Your task to perform on an android device: View the shopping cart on bestbuy. Add energizer triple a to the cart on bestbuy Image 0: 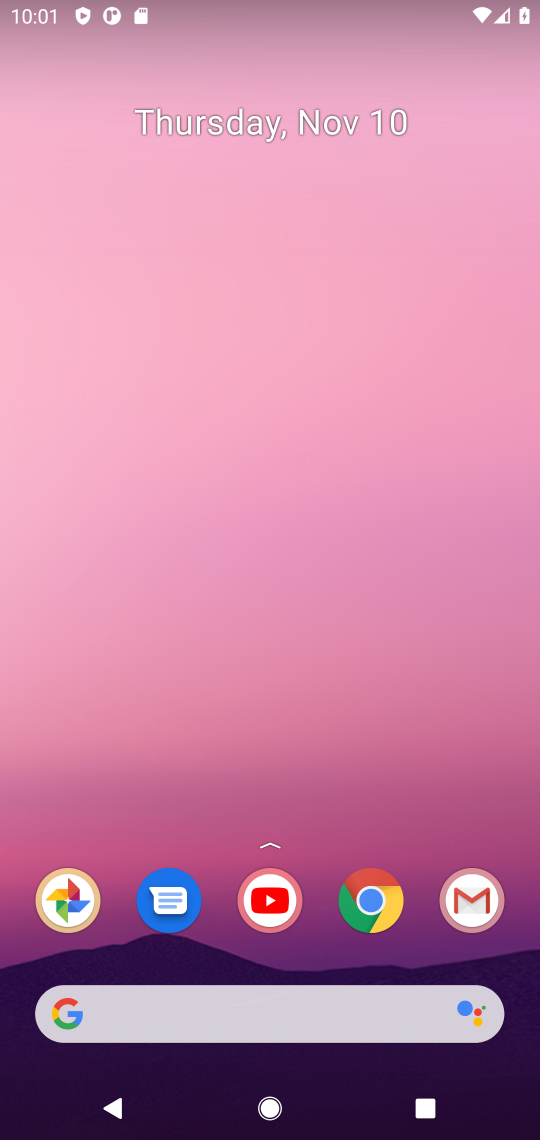
Step 0: click (370, 912)
Your task to perform on an android device: View the shopping cart on bestbuy. Add energizer triple a to the cart on bestbuy Image 1: 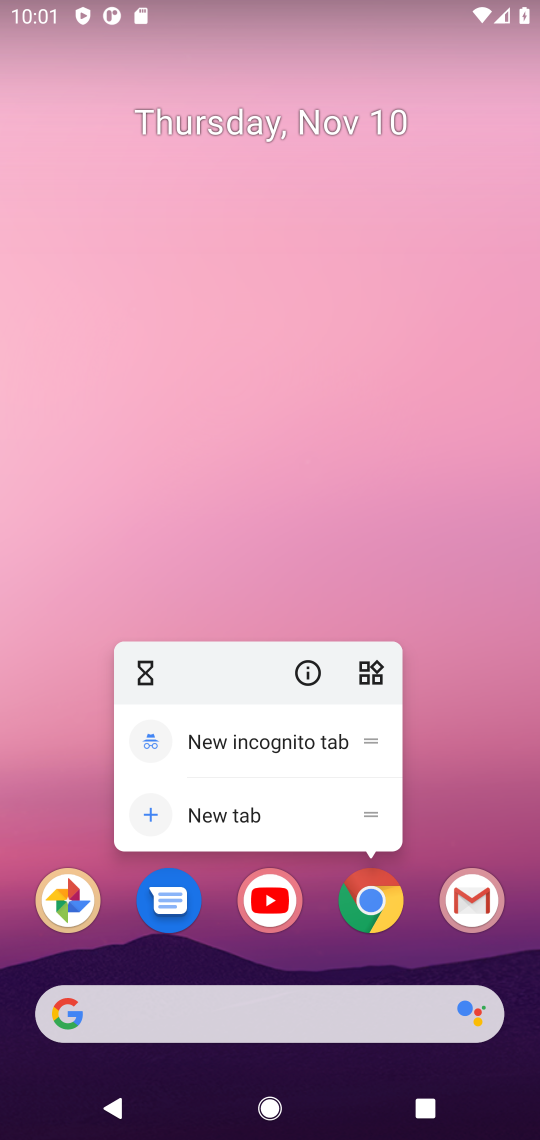
Step 1: click (375, 897)
Your task to perform on an android device: View the shopping cart on bestbuy. Add energizer triple a to the cart on bestbuy Image 2: 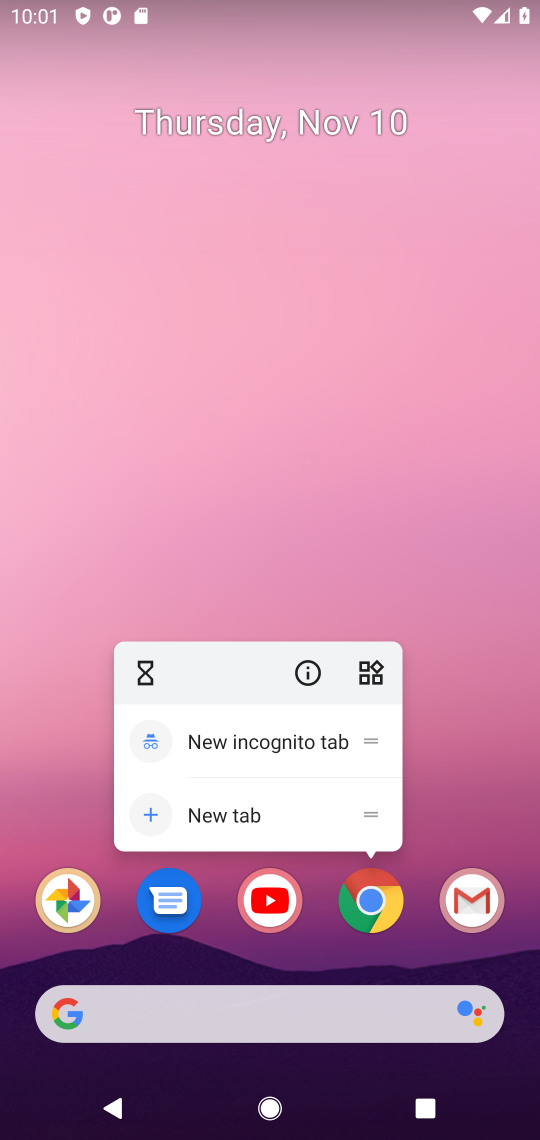
Step 2: click (372, 894)
Your task to perform on an android device: View the shopping cart on bestbuy. Add energizer triple a to the cart on bestbuy Image 3: 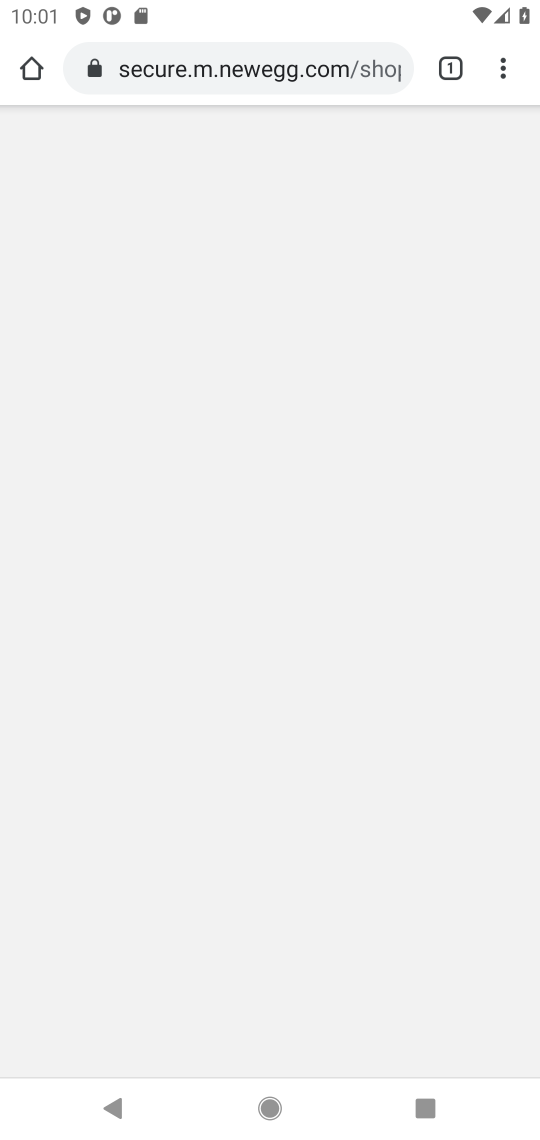
Step 3: click (264, 66)
Your task to perform on an android device: View the shopping cart on bestbuy. Add energizer triple a to the cart on bestbuy Image 4: 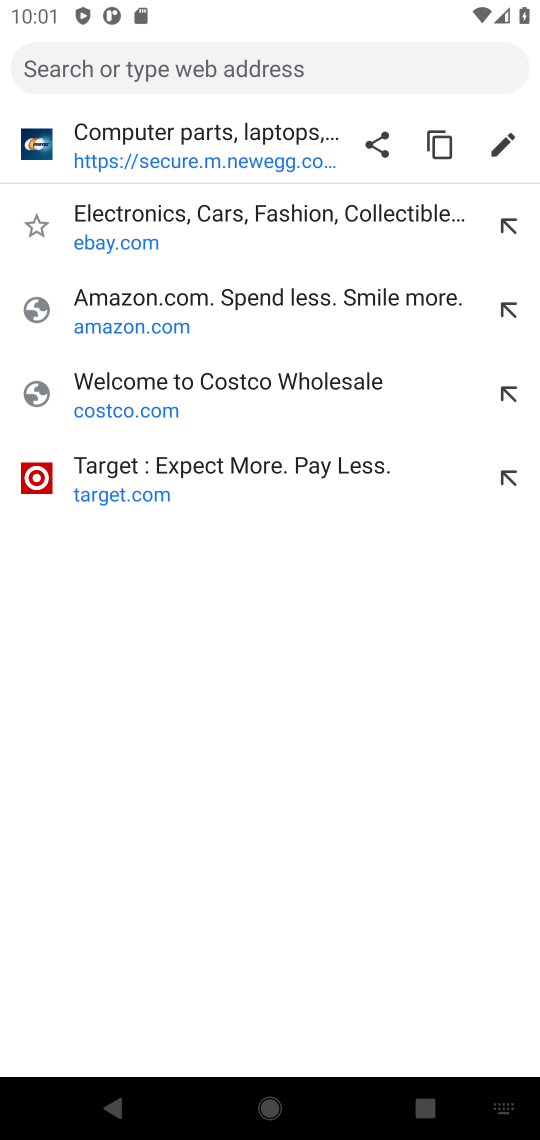
Step 4: type "bestbuy"
Your task to perform on an android device: View the shopping cart on bestbuy. Add energizer triple a to the cart on bestbuy Image 5: 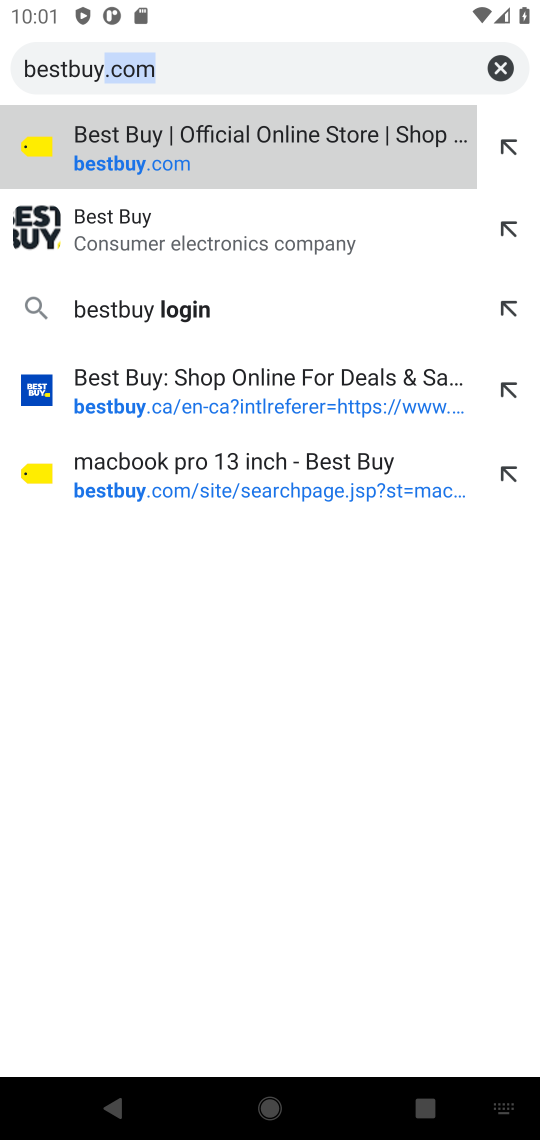
Step 5: press enter
Your task to perform on an android device: View the shopping cart on bestbuy. Add energizer triple a to the cart on bestbuy Image 6: 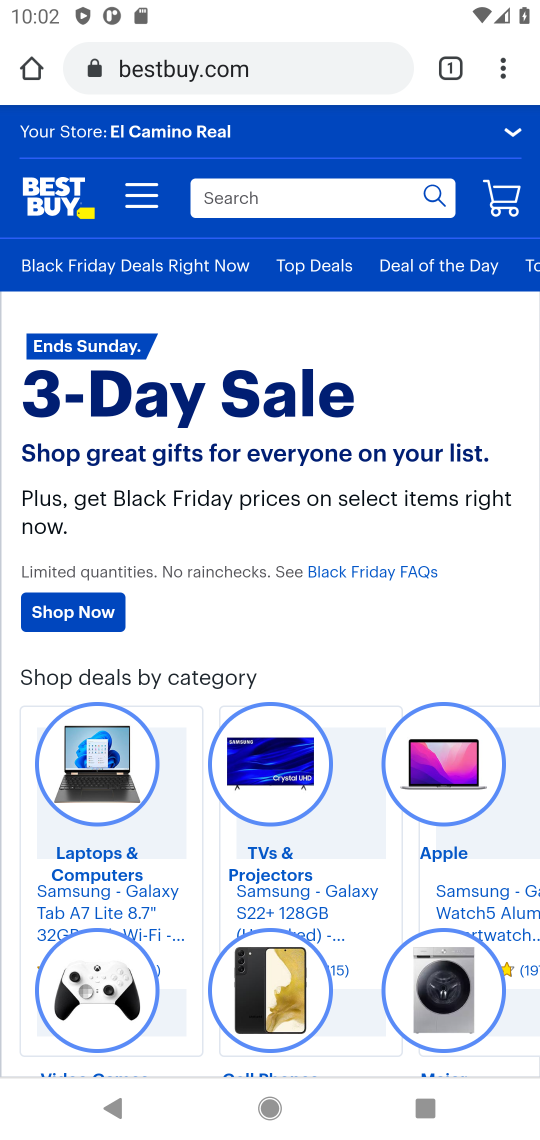
Step 6: click (261, 196)
Your task to perform on an android device: View the shopping cart on bestbuy. Add energizer triple a to the cart on bestbuy Image 7: 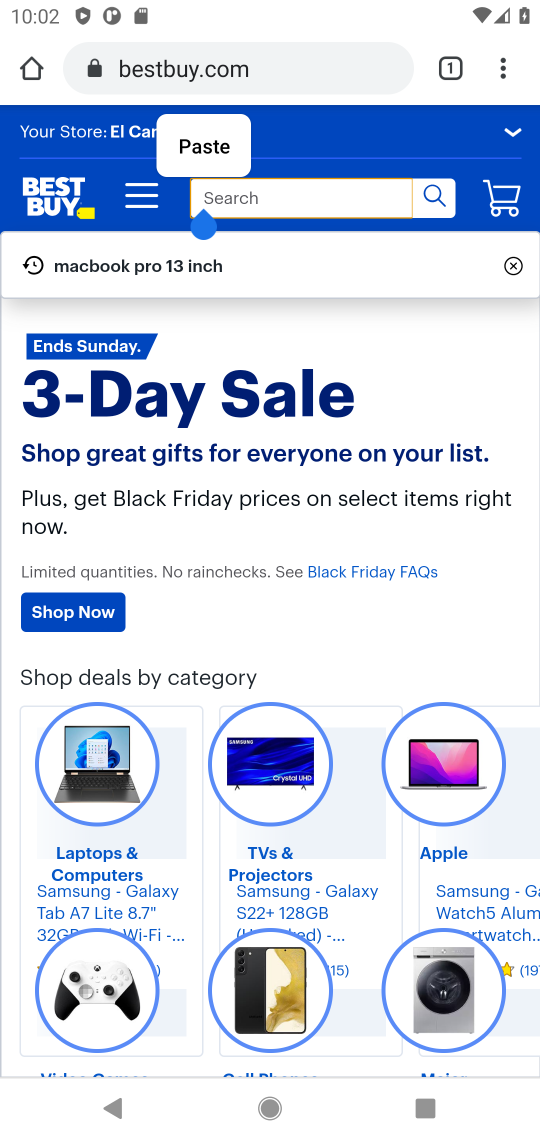
Step 7: type "energizer triple a"
Your task to perform on an android device: View the shopping cart on bestbuy. Add energizer triple a to the cart on bestbuy Image 8: 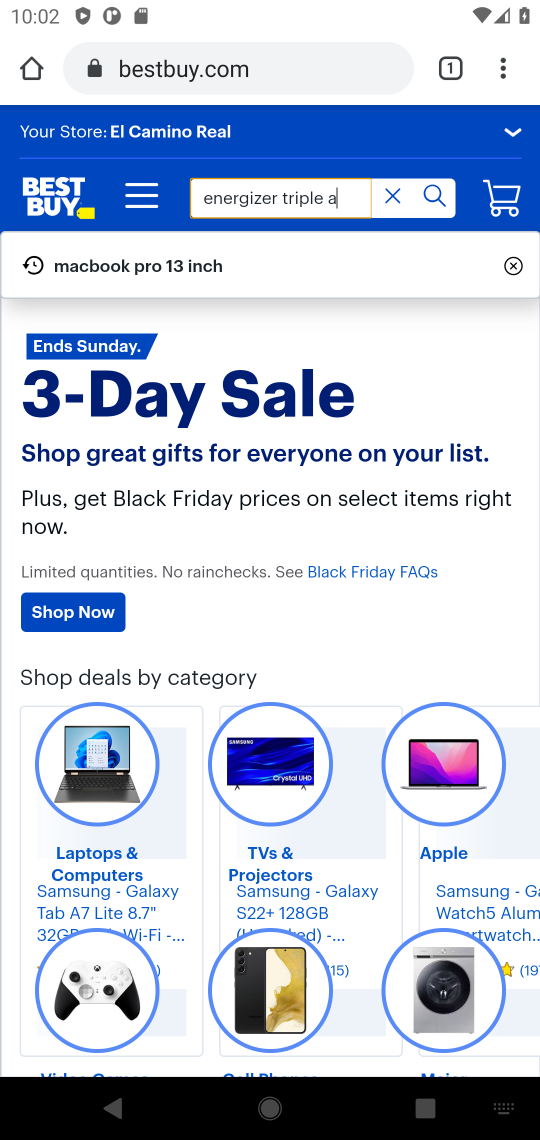
Step 8: press enter
Your task to perform on an android device: View the shopping cart on bestbuy. Add energizer triple a to the cart on bestbuy Image 9: 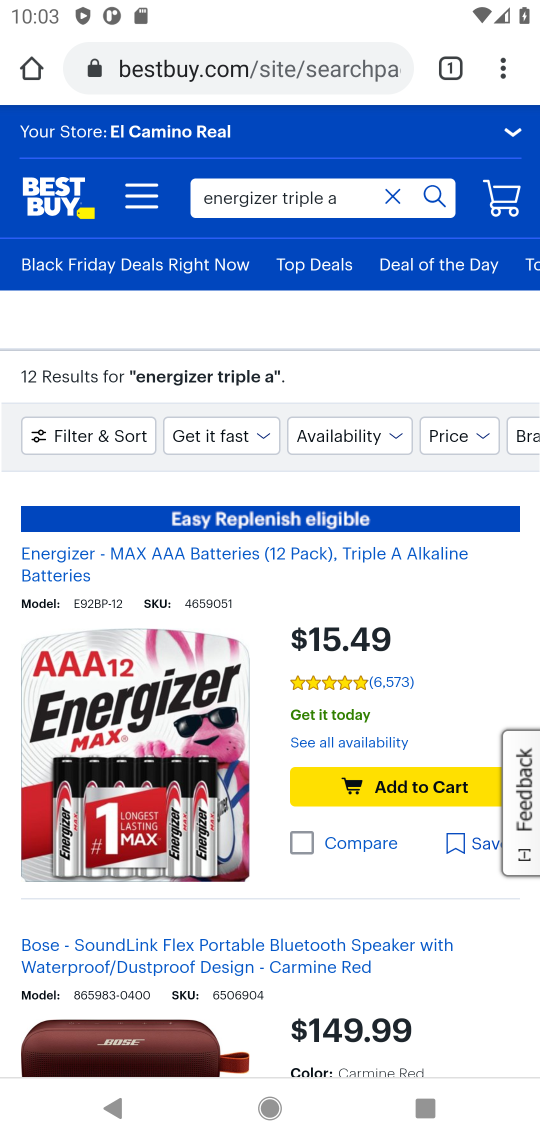
Step 9: task complete